Your task to perform on an android device: Open Youtube and go to the subscriptions tab Image 0: 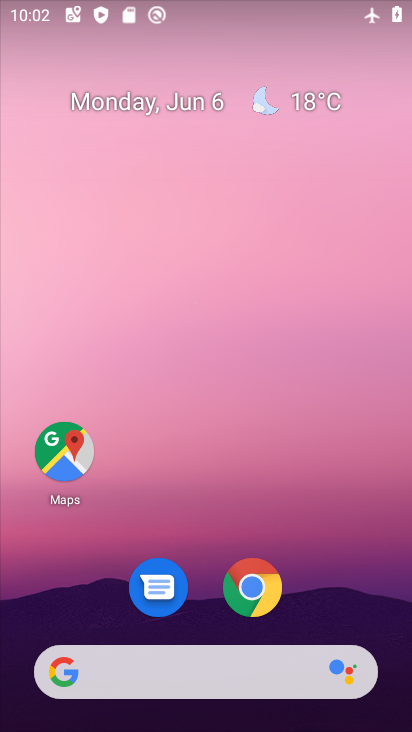
Step 0: drag from (322, 611) to (344, 174)
Your task to perform on an android device: Open Youtube and go to the subscriptions tab Image 1: 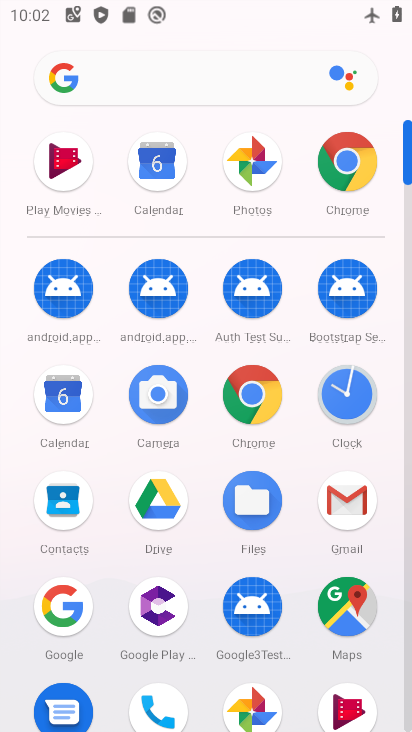
Step 1: drag from (301, 561) to (327, 288)
Your task to perform on an android device: Open Youtube and go to the subscriptions tab Image 2: 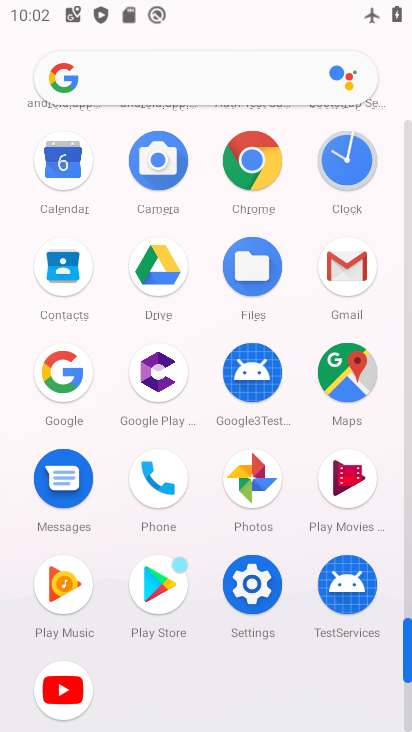
Step 2: click (74, 679)
Your task to perform on an android device: Open Youtube and go to the subscriptions tab Image 3: 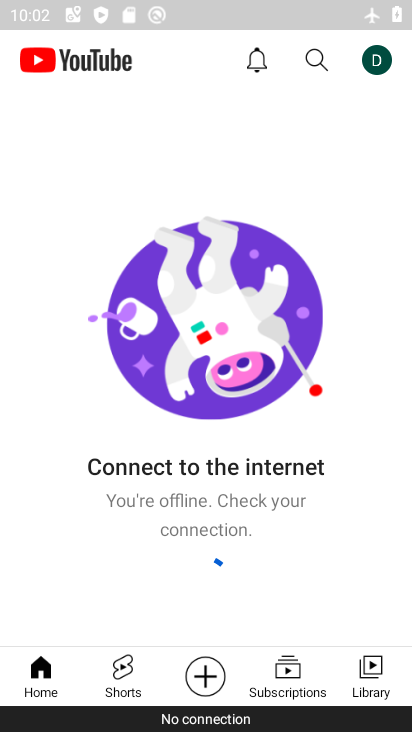
Step 3: click (274, 669)
Your task to perform on an android device: Open Youtube and go to the subscriptions tab Image 4: 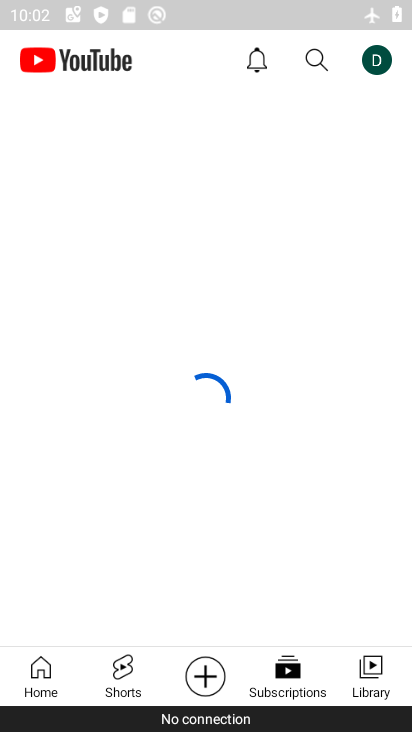
Step 4: task complete